Your task to perform on an android device: Check the weather Image 0: 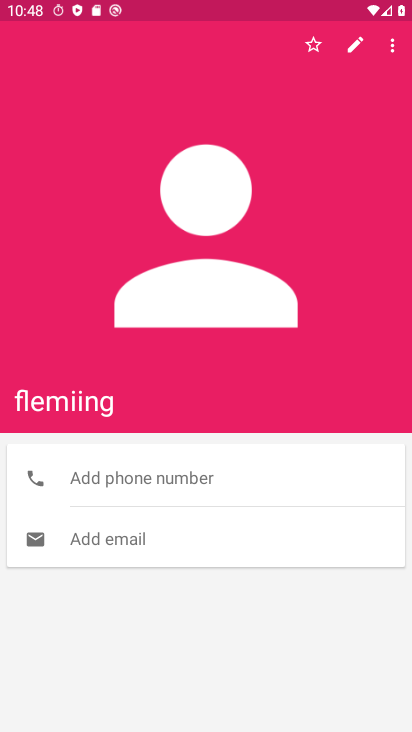
Step 0: press home button
Your task to perform on an android device: Check the weather Image 1: 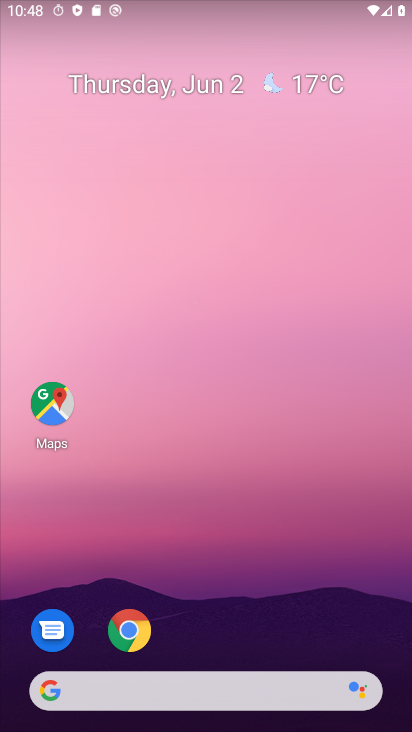
Step 1: click (299, 86)
Your task to perform on an android device: Check the weather Image 2: 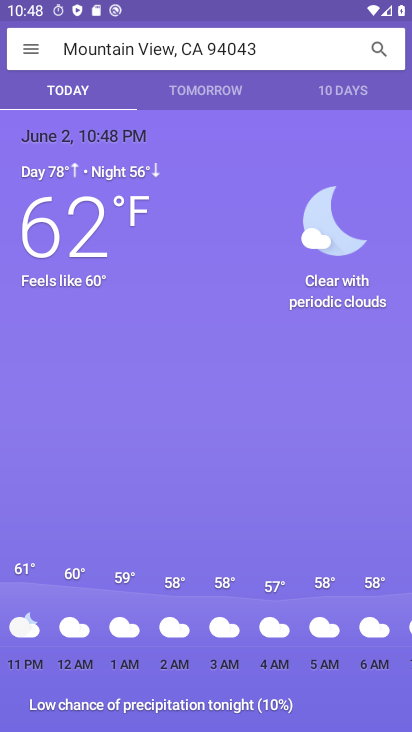
Step 2: task complete